Your task to perform on an android device: Find coffee shops on Maps Image 0: 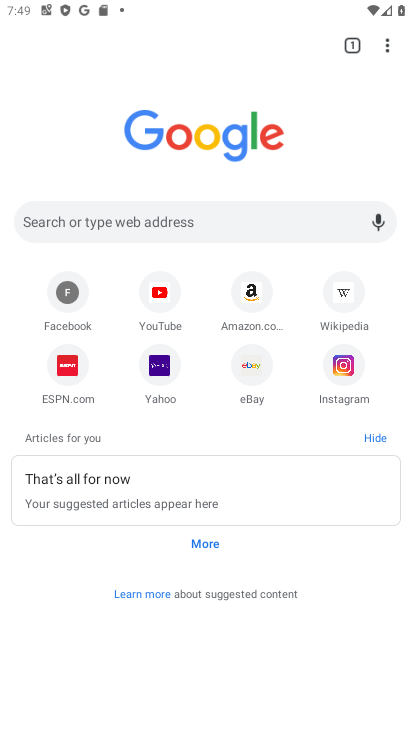
Step 0: press home button
Your task to perform on an android device: Find coffee shops on Maps Image 1: 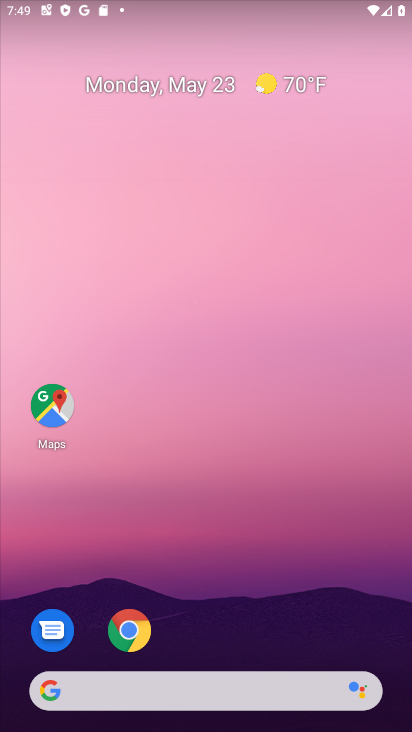
Step 1: click (61, 407)
Your task to perform on an android device: Find coffee shops on Maps Image 2: 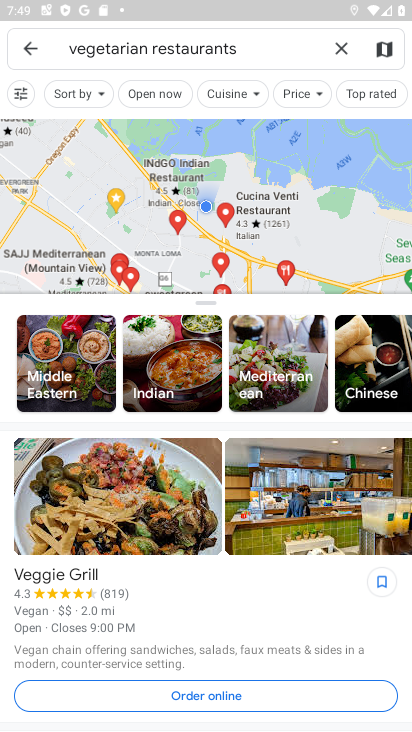
Step 2: click (294, 50)
Your task to perform on an android device: Find coffee shops on Maps Image 3: 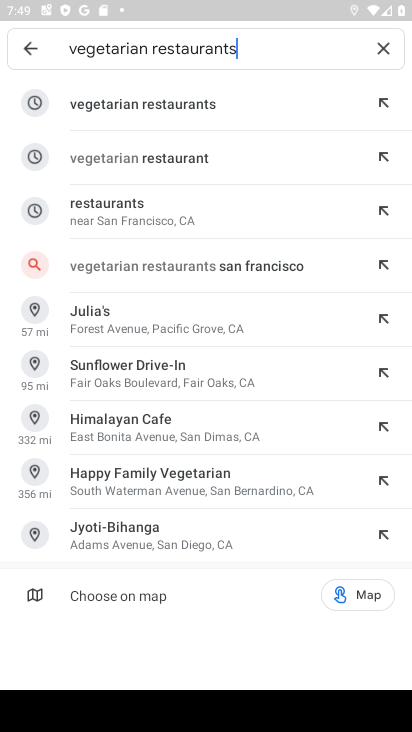
Step 3: click (383, 43)
Your task to perform on an android device: Find coffee shops on Maps Image 4: 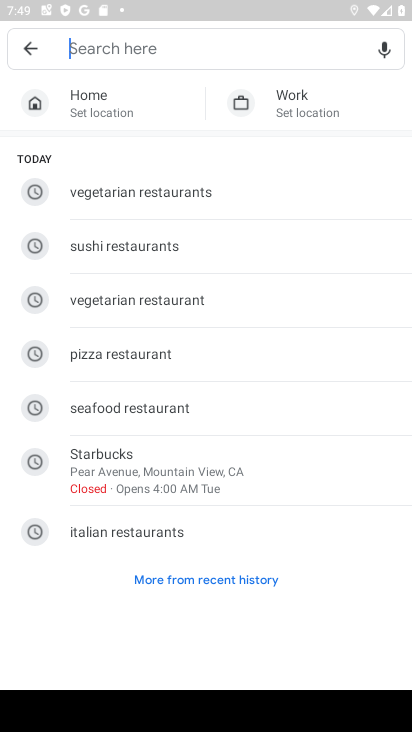
Step 4: type "coffee shops"
Your task to perform on an android device: Find coffee shops on Maps Image 5: 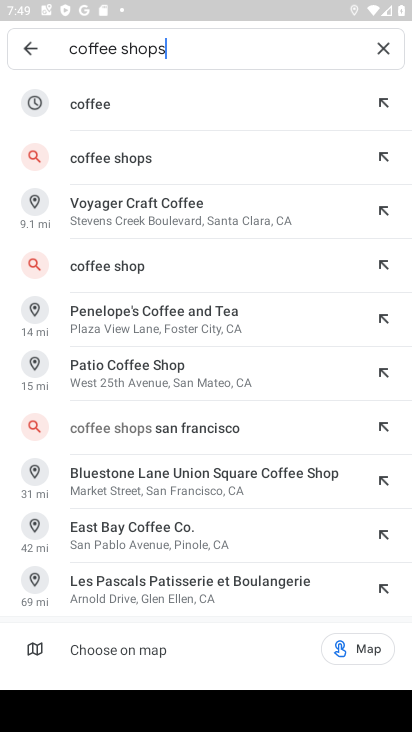
Step 5: click (176, 152)
Your task to perform on an android device: Find coffee shops on Maps Image 6: 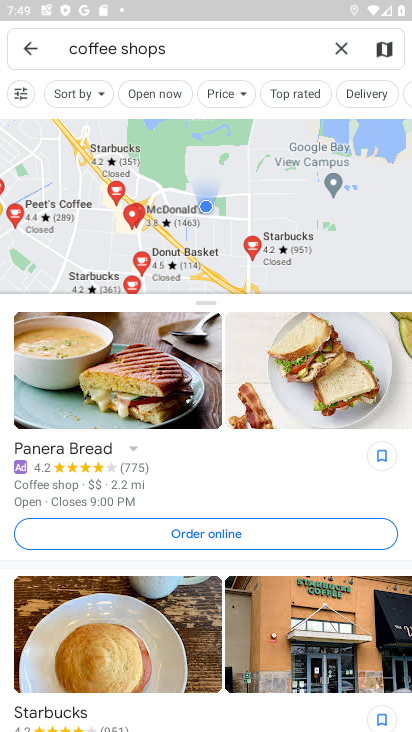
Step 6: task complete